Your task to perform on an android device: check the backup settings in the google photos Image 0: 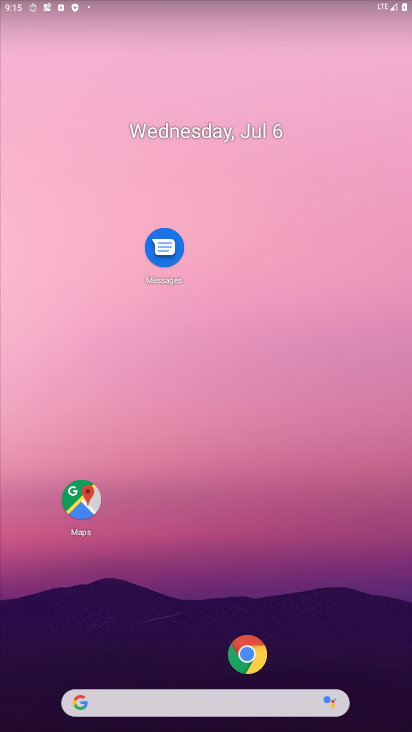
Step 0: drag from (159, 666) to (247, 57)
Your task to perform on an android device: check the backup settings in the google photos Image 1: 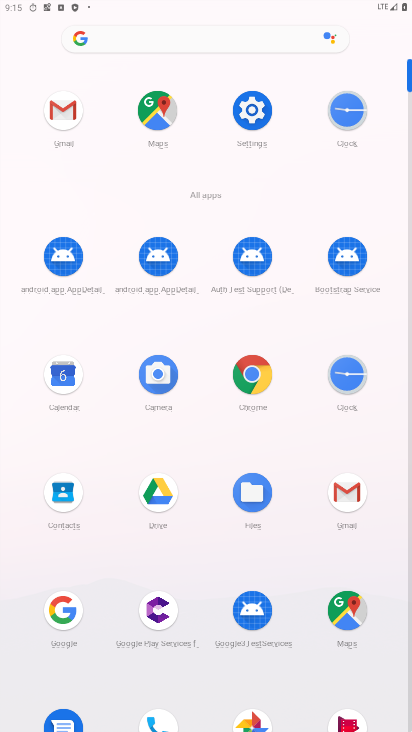
Step 1: drag from (195, 660) to (307, 216)
Your task to perform on an android device: check the backup settings in the google photos Image 2: 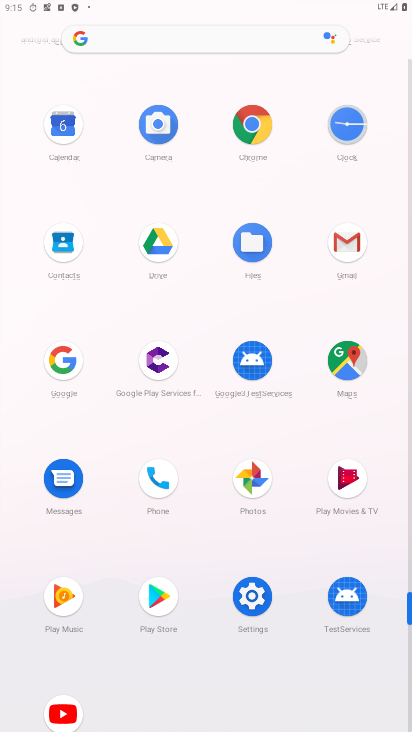
Step 2: click (245, 479)
Your task to perform on an android device: check the backup settings in the google photos Image 3: 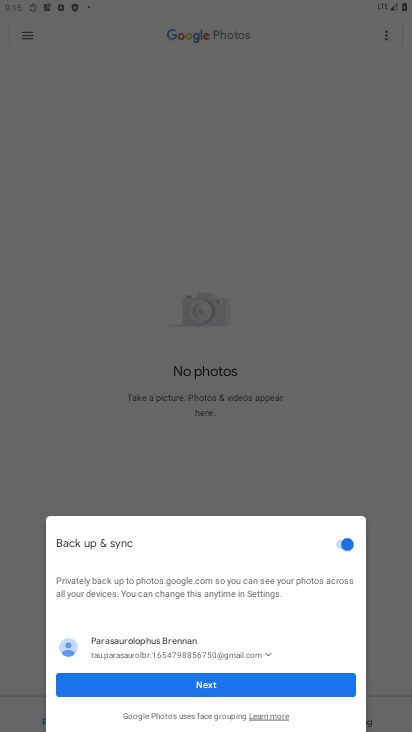
Step 3: click (277, 683)
Your task to perform on an android device: check the backup settings in the google photos Image 4: 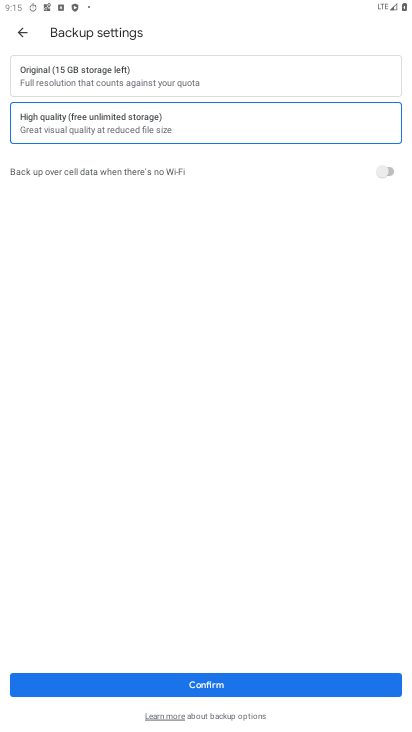
Step 4: click (288, 678)
Your task to perform on an android device: check the backup settings in the google photos Image 5: 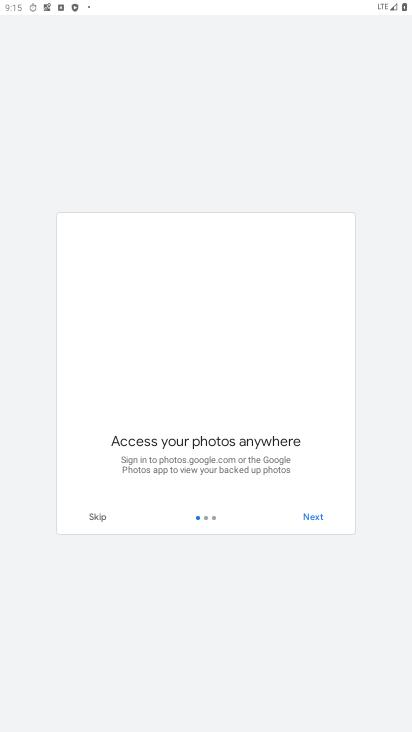
Step 5: task complete